Your task to perform on an android device: add a contact in the contacts app Image 0: 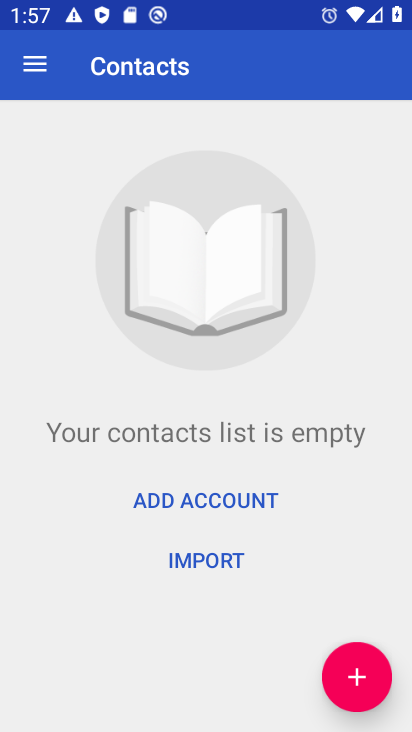
Step 0: click (356, 677)
Your task to perform on an android device: add a contact in the contacts app Image 1: 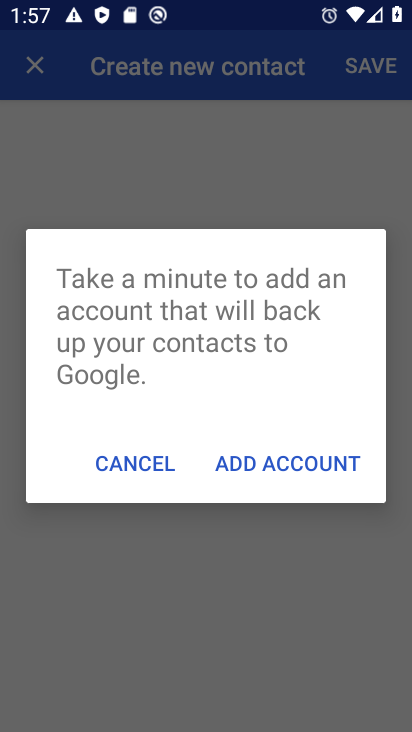
Step 1: click (128, 461)
Your task to perform on an android device: add a contact in the contacts app Image 2: 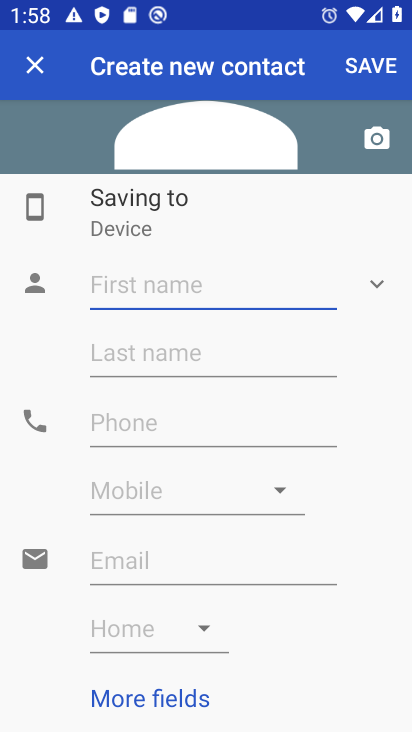
Step 2: type "ffgfcn"
Your task to perform on an android device: add a contact in the contacts app Image 3: 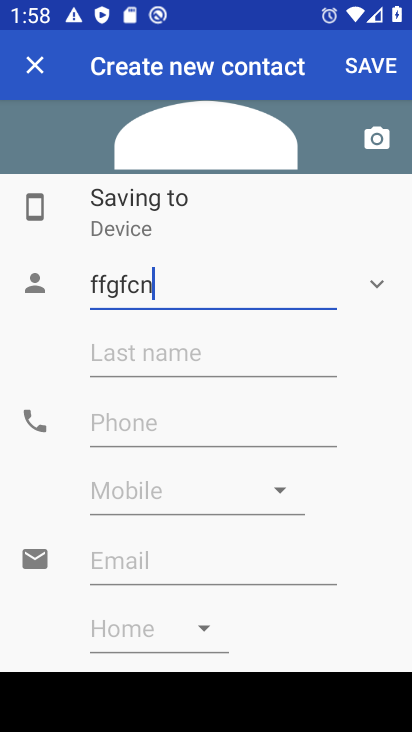
Step 3: type ""
Your task to perform on an android device: add a contact in the contacts app Image 4: 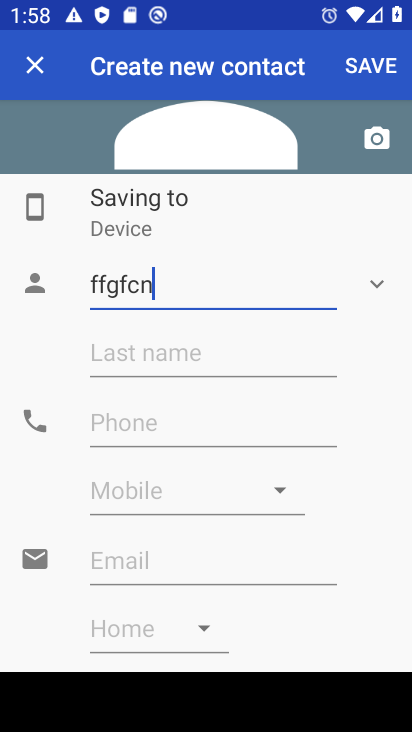
Step 4: click (224, 428)
Your task to perform on an android device: add a contact in the contacts app Image 5: 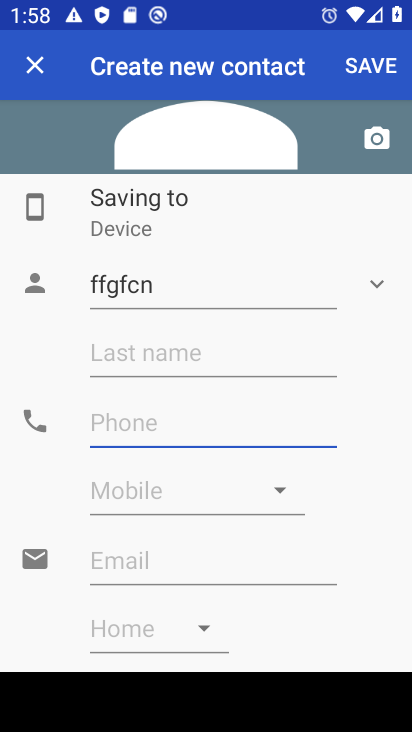
Step 5: type "865564465"
Your task to perform on an android device: add a contact in the contacts app Image 6: 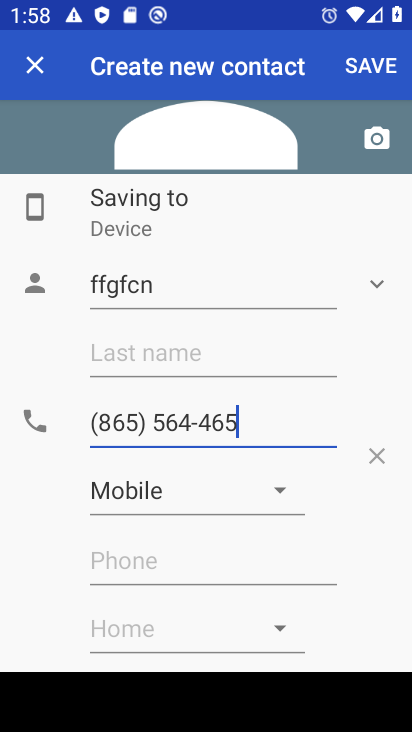
Step 6: click (364, 70)
Your task to perform on an android device: add a contact in the contacts app Image 7: 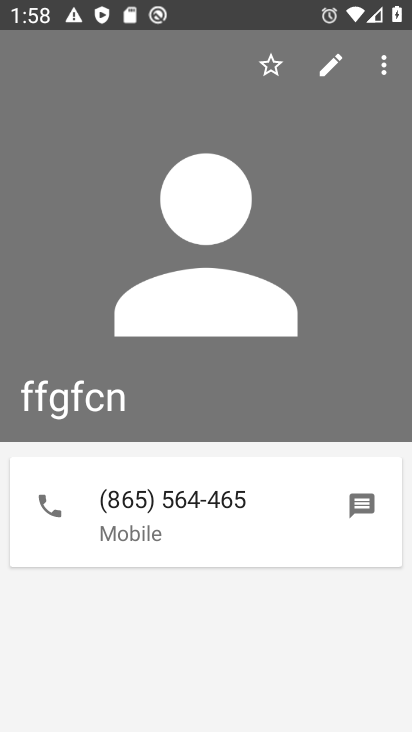
Step 7: task complete